Your task to perform on an android device: Add razer blade to the cart on walmart.com, then select checkout. Image 0: 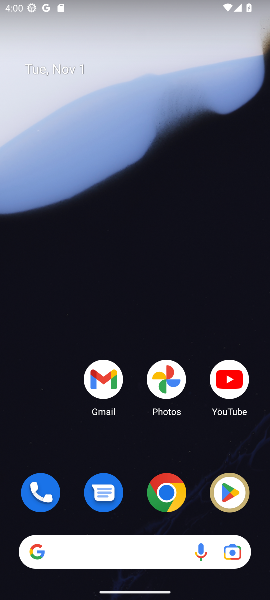
Step 0: click (166, 494)
Your task to perform on an android device: Add razer blade to the cart on walmart.com, then select checkout. Image 1: 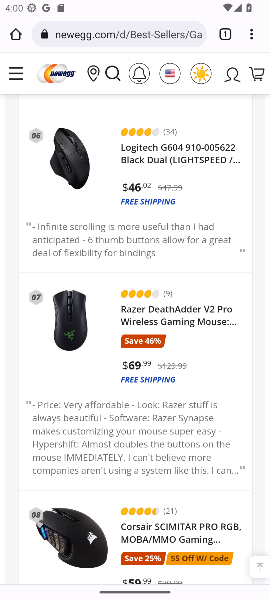
Step 1: click (114, 33)
Your task to perform on an android device: Add razer blade to the cart on walmart.com, then select checkout. Image 2: 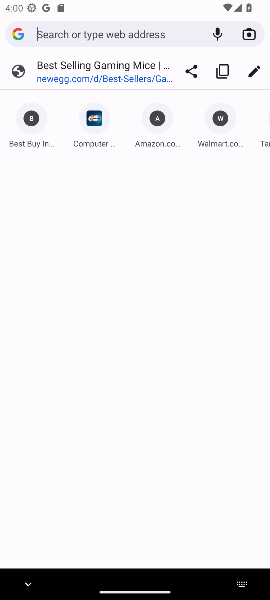
Step 2: type "walmart.com"
Your task to perform on an android device: Add razer blade to the cart on walmart.com, then select checkout. Image 3: 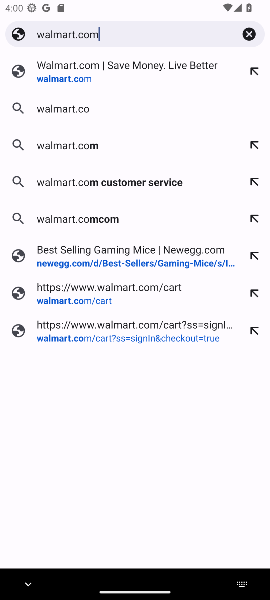
Step 3: type ""
Your task to perform on an android device: Add razer blade to the cart on walmart.com, then select checkout. Image 4: 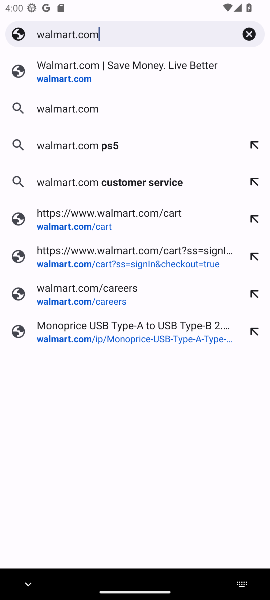
Step 4: click (188, 76)
Your task to perform on an android device: Add razer blade to the cart on walmart.com, then select checkout. Image 5: 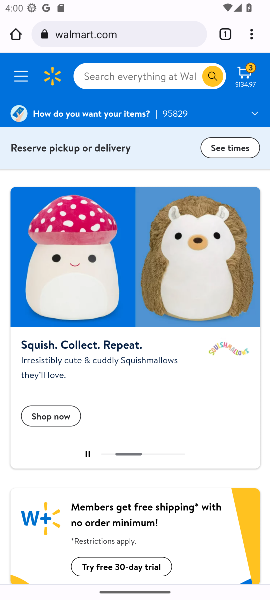
Step 5: click (154, 75)
Your task to perform on an android device: Add razer blade to the cart on walmart.com, then select checkout. Image 6: 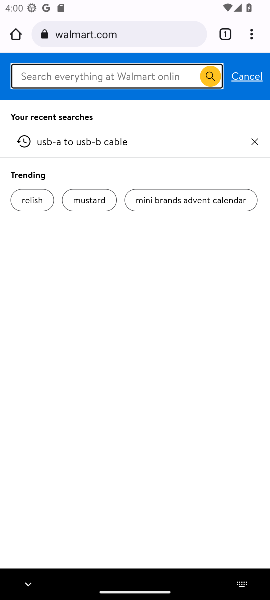
Step 6: type "razer blade"
Your task to perform on an android device: Add razer blade to the cart on walmart.com, then select checkout. Image 7: 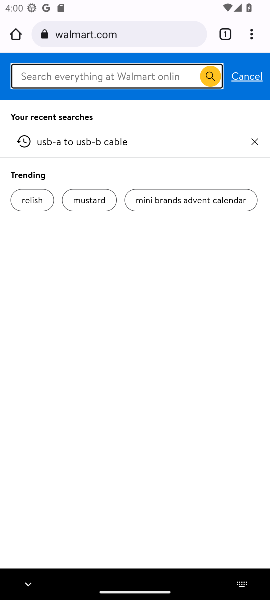
Step 7: type ""
Your task to perform on an android device: Add razer blade to the cart on walmart.com, then select checkout. Image 8: 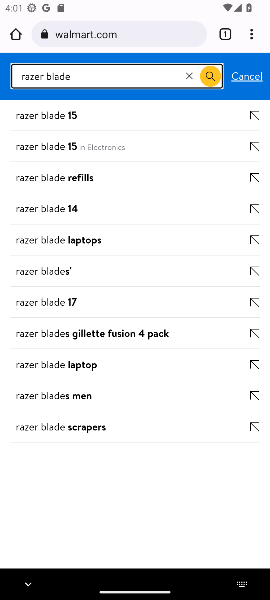
Step 8: press enter
Your task to perform on an android device: Add razer blade to the cart on walmart.com, then select checkout. Image 9: 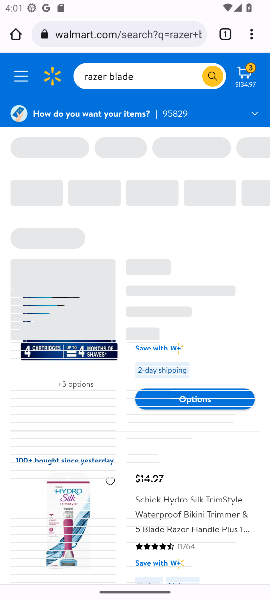
Step 9: click (143, 287)
Your task to perform on an android device: Add razer blade to the cart on walmart.com, then select checkout. Image 10: 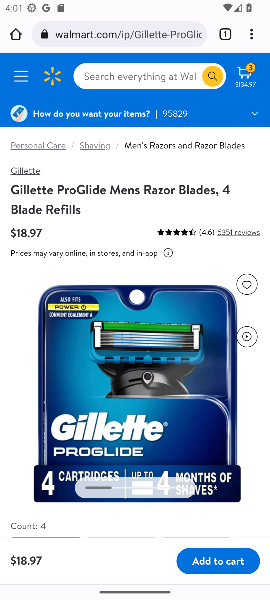
Step 10: drag from (145, 402) to (145, 356)
Your task to perform on an android device: Add razer blade to the cart on walmart.com, then select checkout. Image 11: 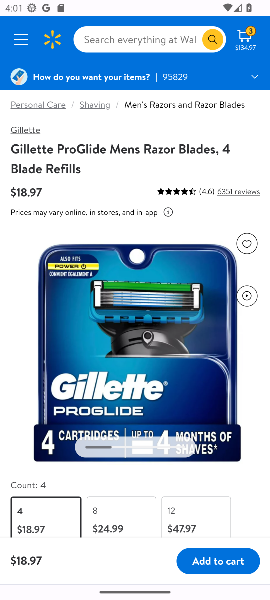
Step 11: press back button
Your task to perform on an android device: Add razer blade to the cart on walmart.com, then select checkout. Image 12: 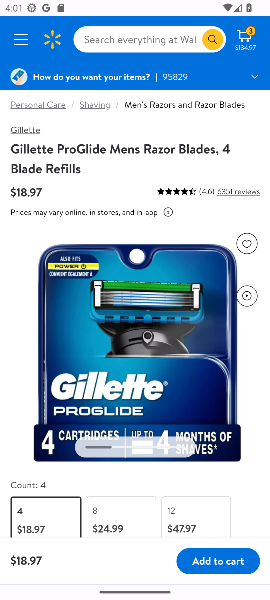
Step 12: press back button
Your task to perform on an android device: Add razer blade to the cart on walmart.com, then select checkout. Image 13: 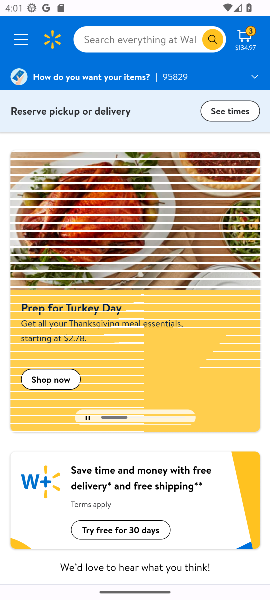
Step 13: click (163, 34)
Your task to perform on an android device: Add razer blade to the cart on walmart.com, then select checkout. Image 14: 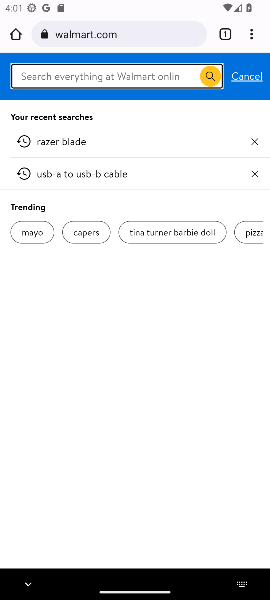
Step 14: click (37, 140)
Your task to perform on an android device: Add razer blade to the cart on walmart.com, then select checkout. Image 15: 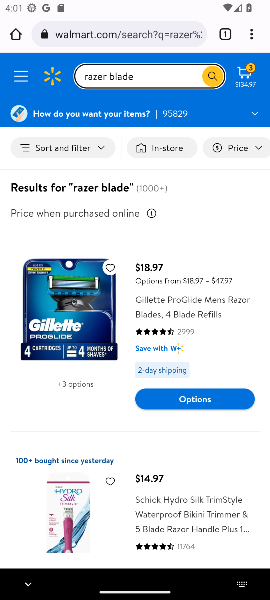
Step 15: drag from (156, 461) to (162, 242)
Your task to perform on an android device: Add razer blade to the cart on walmart.com, then select checkout. Image 16: 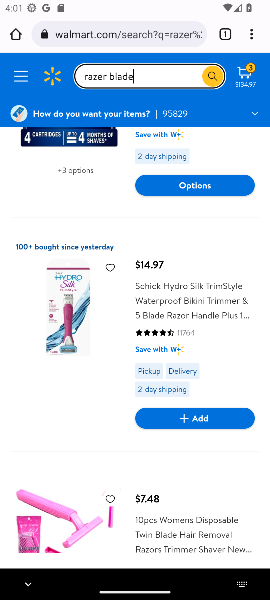
Step 16: drag from (120, 434) to (121, 337)
Your task to perform on an android device: Add razer blade to the cart on walmart.com, then select checkout. Image 17: 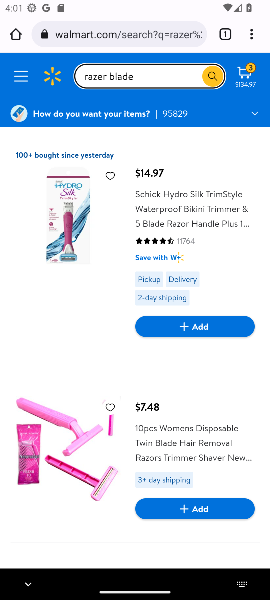
Step 17: click (154, 69)
Your task to perform on an android device: Add razer blade to the cart on walmart.com, then select checkout. Image 18: 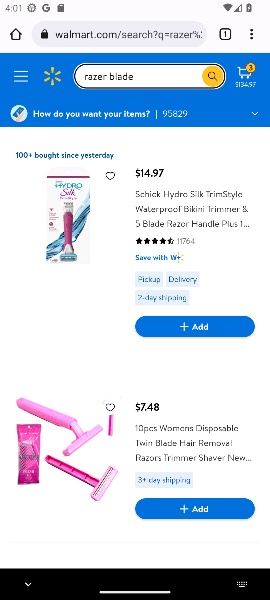
Step 18: click (148, 76)
Your task to perform on an android device: Add razer blade to the cart on walmart.com, then select checkout. Image 19: 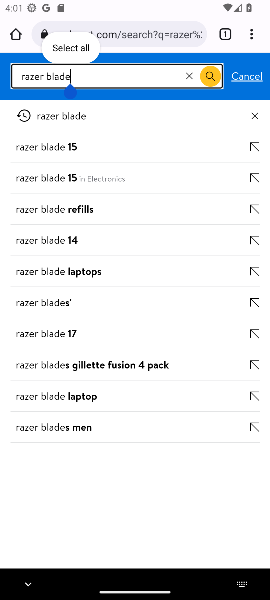
Step 19: click (90, 150)
Your task to perform on an android device: Add razer blade to the cart on walmart.com, then select checkout. Image 20: 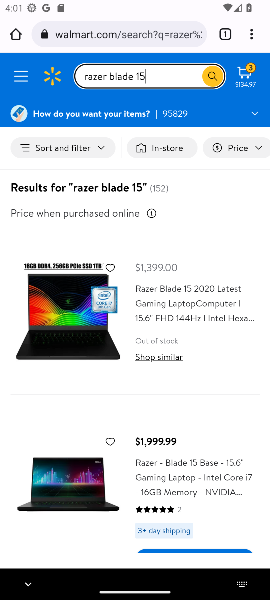
Step 20: click (159, 279)
Your task to perform on an android device: Add razer blade to the cart on walmart.com, then select checkout. Image 21: 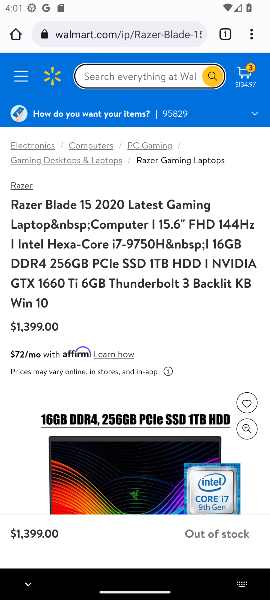
Step 21: drag from (202, 379) to (208, 158)
Your task to perform on an android device: Add razer blade to the cart on walmart.com, then select checkout. Image 22: 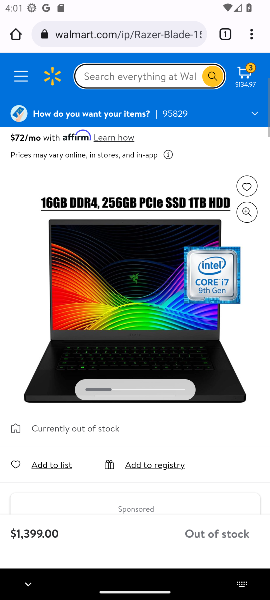
Step 22: drag from (154, 383) to (157, 178)
Your task to perform on an android device: Add razer blade to the cart on walmart.com, then select checkout. Image 23: 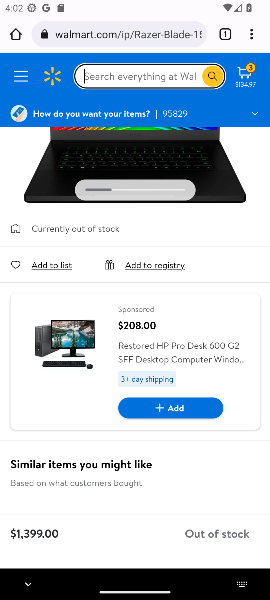
Step 23: click (169, 409)
Your task to perform on an android device: Add razer blade to the cart on walmart.com, then select checkout. Image 24: 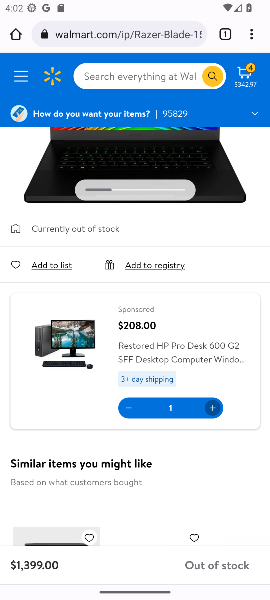
Step 24: drag from (227, 483) to (194, 427)
Your task to perform on an android device: Add razer blade to the cart on walmart.com, then select checkout. Image 25: 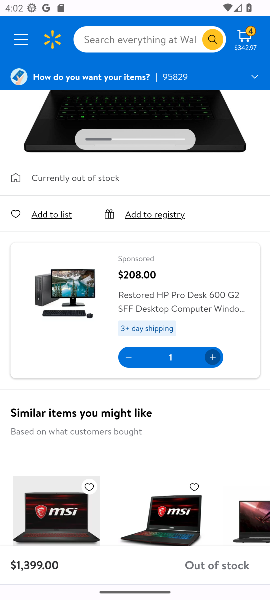
Step 25: click (254, 42)
Your task to perform on an android device: Add razer blade to the cart on walmart.com, then select checkout. Image 26: 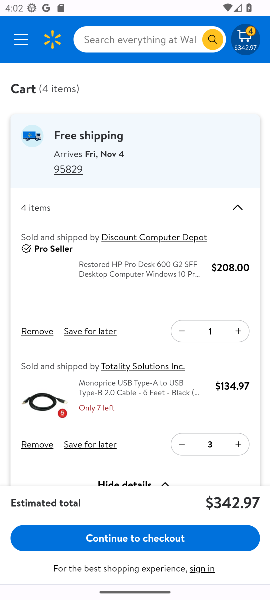
Step 26: click (184, 331)
Your task to perform on an android device: Add razer blade to the cart on walmart.com, then select checkout. Image 27: 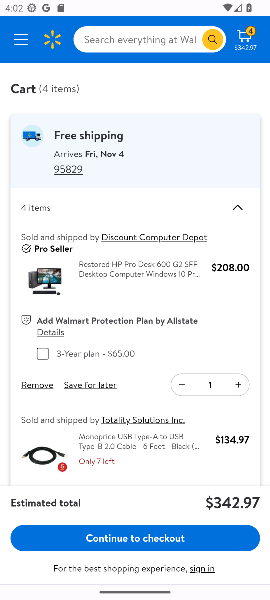
Step 27: click (180, 381)
Your task to perform on an android device: Add razer blade to the cart on walmart.com, then select checkout. Image 28: 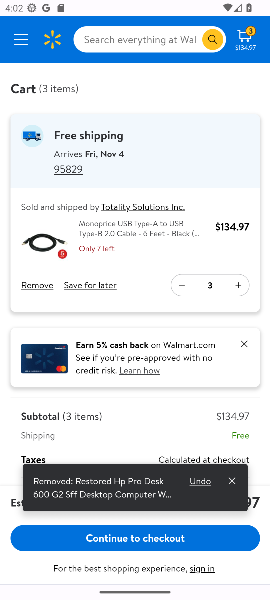
Step 28: click (177, 284)
Your task to perform on an android device: Add razer blade to the cart on walmart.com, then select checkout. Image 29: 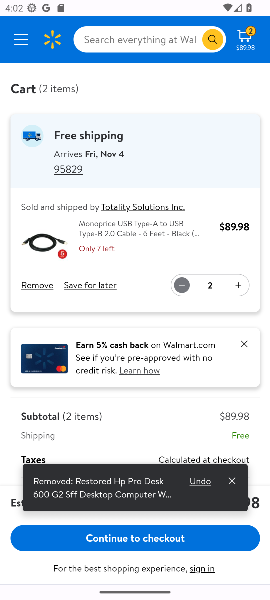
Step 29: click (177, 284)
Your task to perform on an android device: Add razer blade to the cart on walmart.com, then select checkout. Image 30: 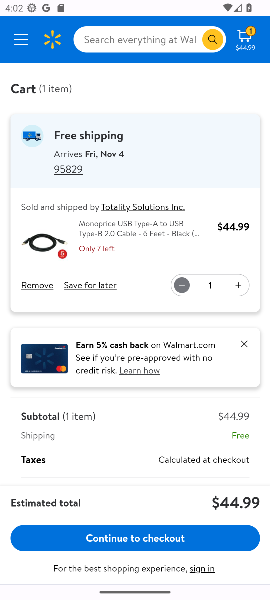
Step 30: click (177, 284)
Your task to perform on an android device: Add razer blade to the cart on walmart.com, then select checkout. Image 31: 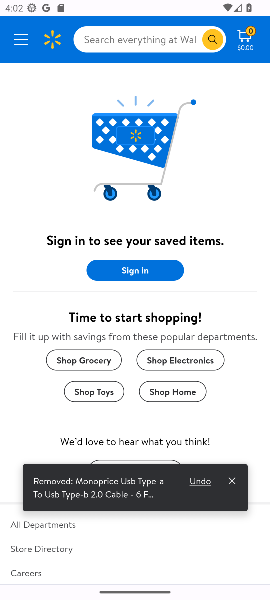
Step 31: click (170, 33)
Your task to perform on an android device: Add razer blade to the cart on walmart.com, then select checkout. Image 32: 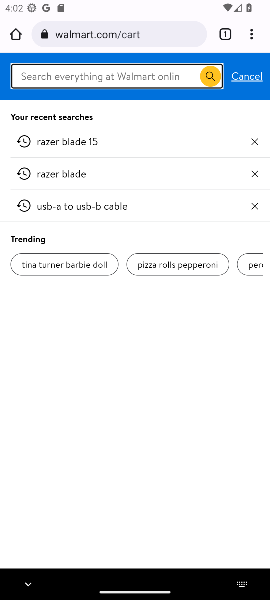
Step 32: click (56, 146)
Your task to perform on an android device: Add razer blade to the cart on walmart.com, then select checkout. Image 33: 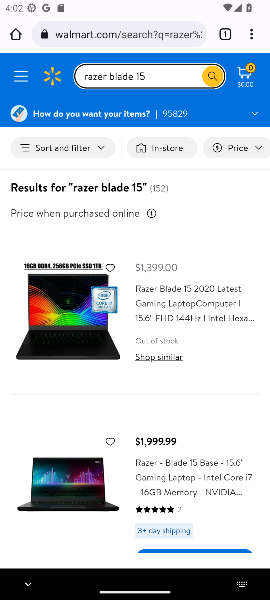
Step 33: click (168, 463)
Your task to perform on an android device: Add razer blade to the cart on walmart.com, then select checkout. Image 34: 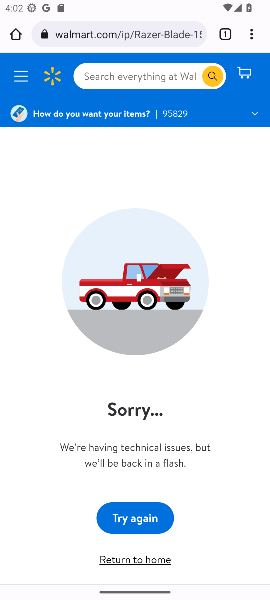
Step 34: task complete